Your task to perform on an android device: change the upload size in google photos Image 0: 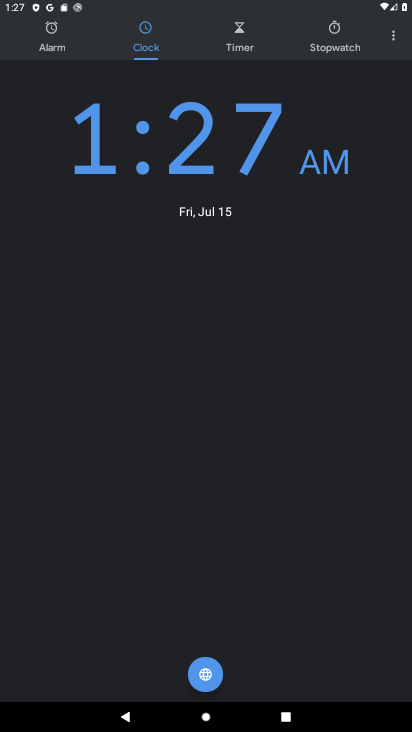
Step 0: press home button
Your task to perform on an android device: change the upload size in google photos Image 1: 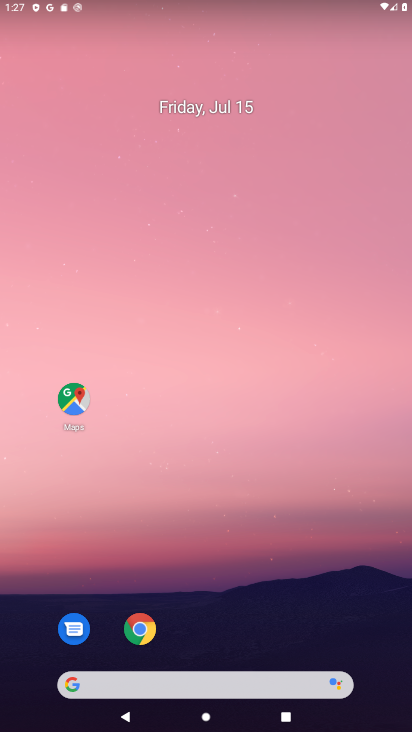
Step 1: click (198, 119)
Your task to perform on an android device: change the upload size in google photos Image 2: 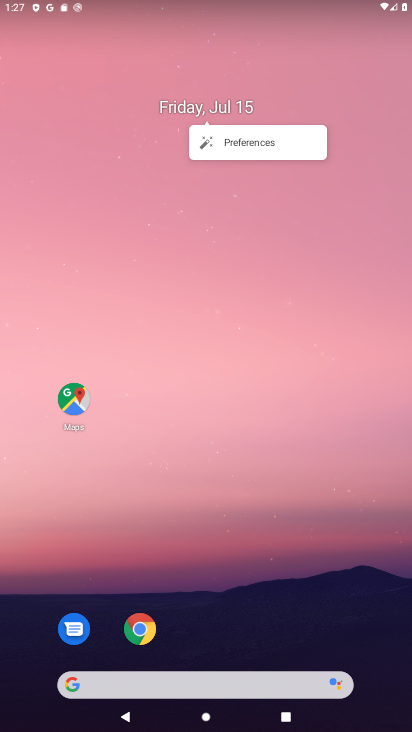
Step 2: drag from (203, 635) to (263, 15)
Your task to perform on an android device: change the upload size in google photos Image 3: 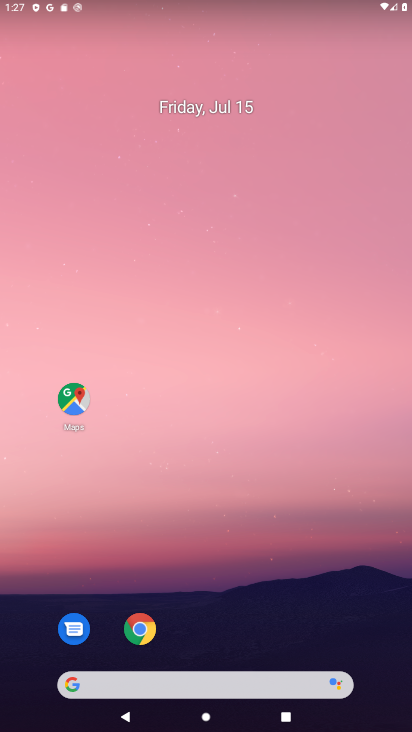
Step 3: click (192, 632)
Your task to perform on an android device: change the upload size in google photos Image 4: 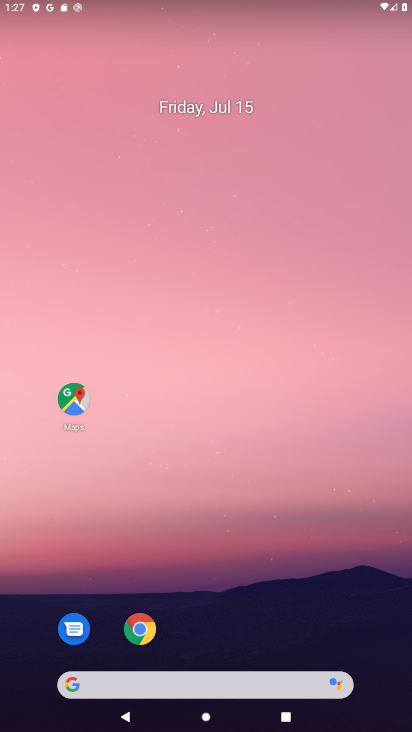
Step 4: drag from (210, 595) to (238, 11)
Your task to perform on an android device: change the upload size in google photos Image 5: 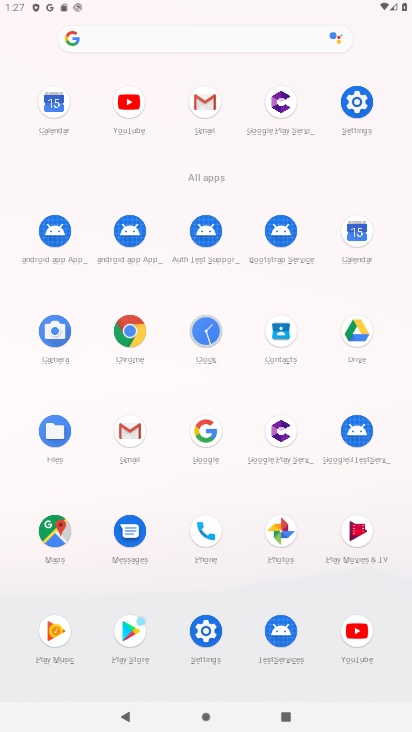
Step 5: click (286, 537)
Your task to perform on an android device: change the upload size in google photos Image 6: 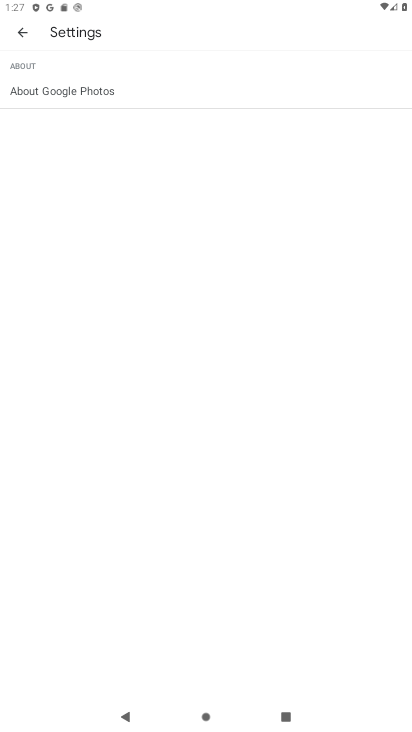
Step 6: click (18, 30)
Your task to perform on an android device: change the upload size in google photos Image 7: 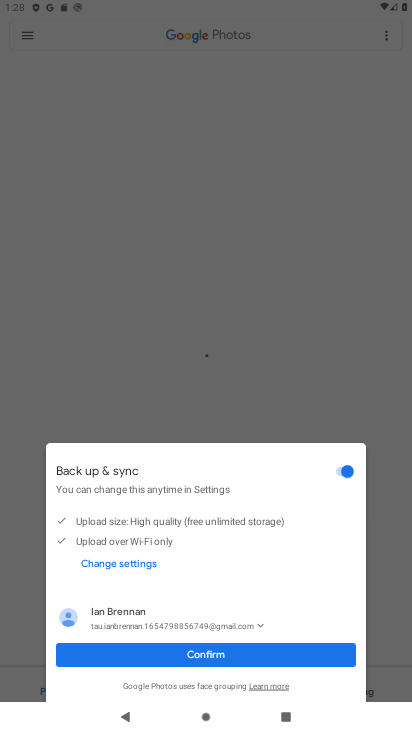
Step 7: click (227, 651)
Your task to perform on an android device: change the upload size in google photos Image 8: 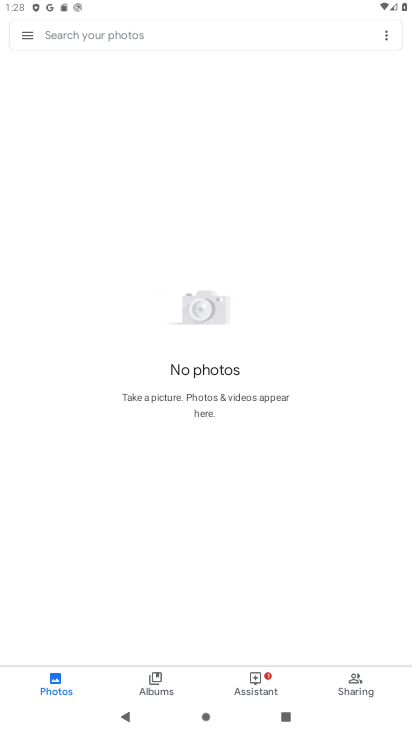
Step 8: click (30, 38)
Your task to perform on an android device: change the upload size in google photos Image 9: 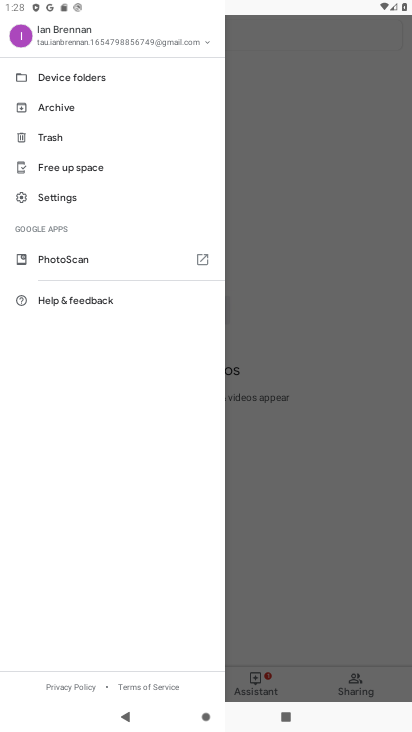
Step 9: click (48, 201)
Your task to perform on an android device: change the upload size in google photos Image 10: 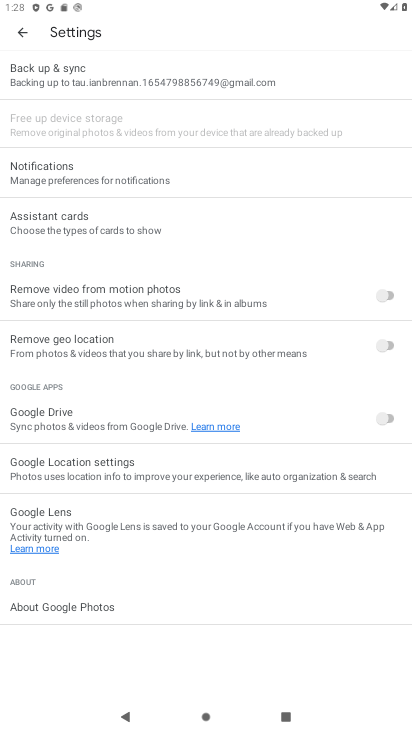
Step 10: click (164, 71)
Your task to perform on an android device: change the upload size in google photos Image 11: 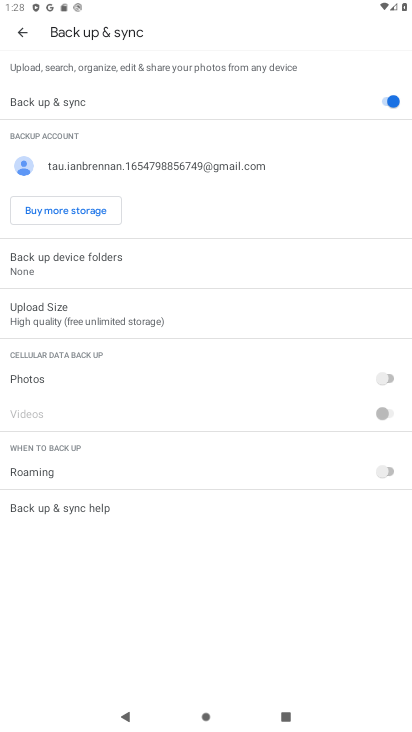
Step 11: click (63, 310)
Your task to perform on an android device: change the upload size in google photos Image 12: 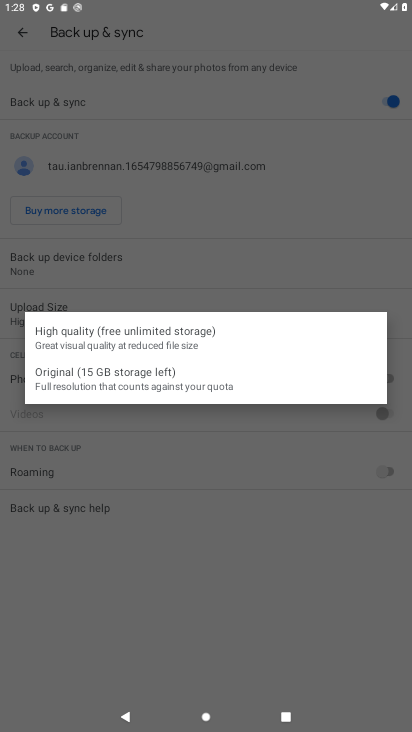
Step 12: click (79, 376)
Your task to perform on an android device: change the upload size in google photos Image 13: 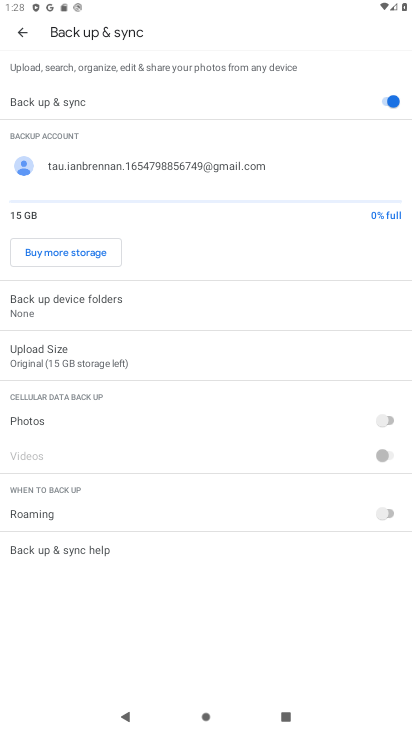
Step 13: task complete